Your task to perform on an android device: Open Wikipedia Image 0: 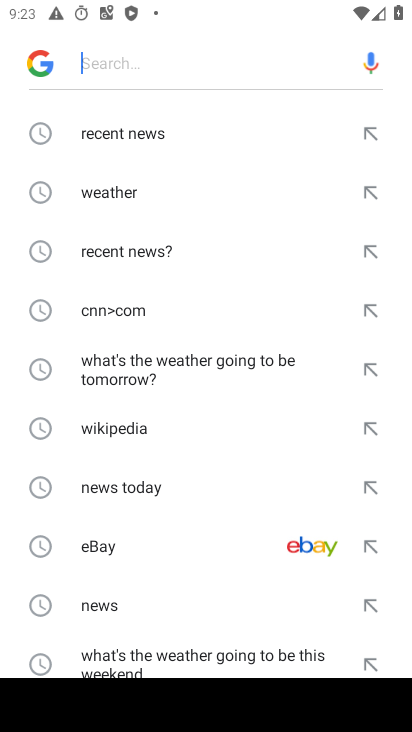
Step 0: press home button
Your task to perform on an android device: Open Wikipedia Image 1: 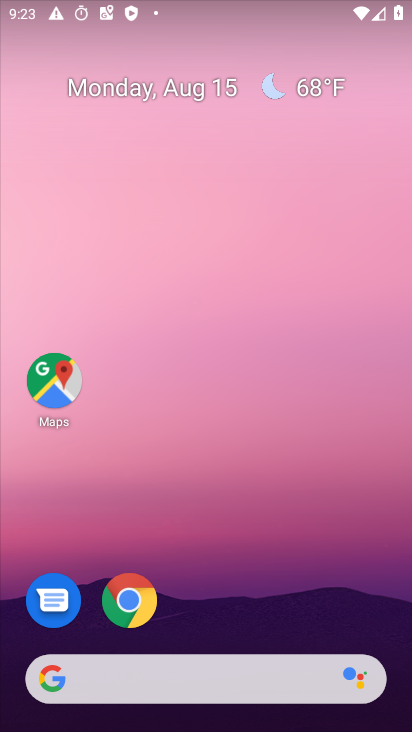
Step 1: click (129, 601)
Your task to perform on an android device: Open Wikipedia Image 2: 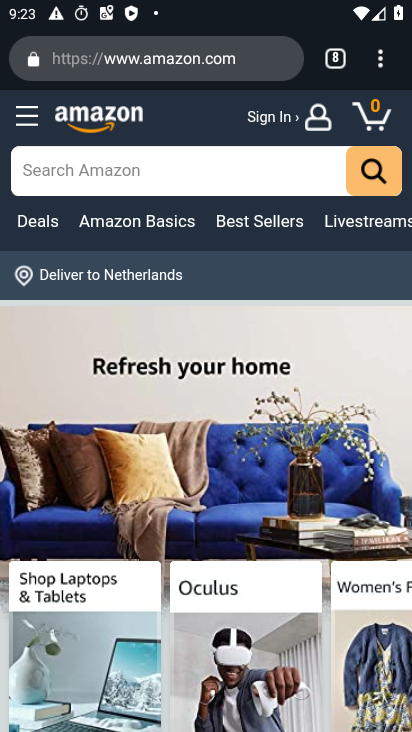
Step 2: click (382, 67)
Your task to perform on an android device: Open Wikipedia Image 3: 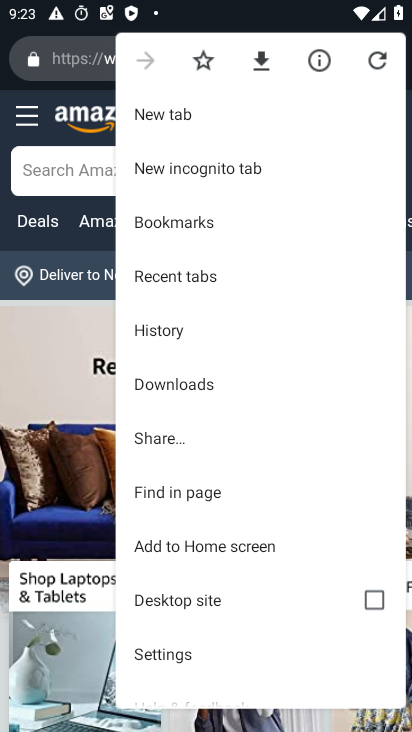
Step 3: click (163, 108)
Your task to perform on an android device: Open Wikipedia Image 4: 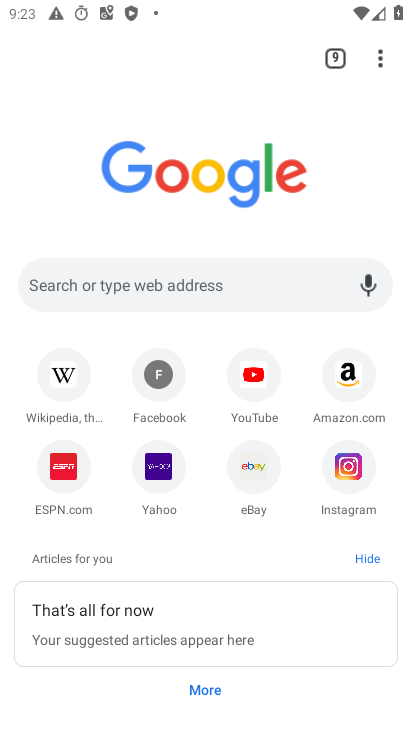
Step 4: click (59, 379)
Your task to perform on an android device: Open Wikipedia Image 5: 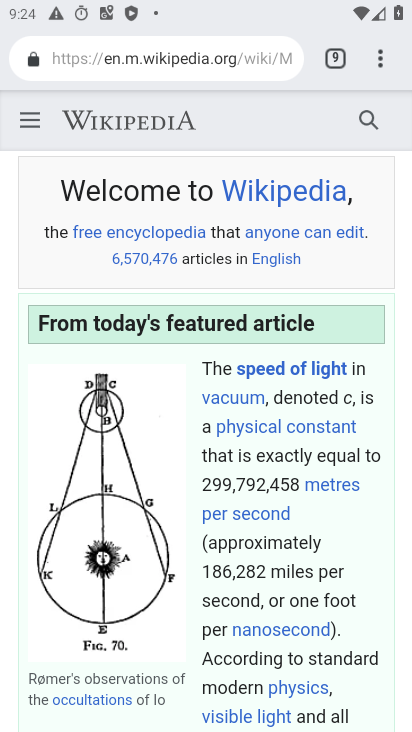
Step 5: task complete